Your task to perform on an android device: What's the weather going to be this weekend? Image 0: 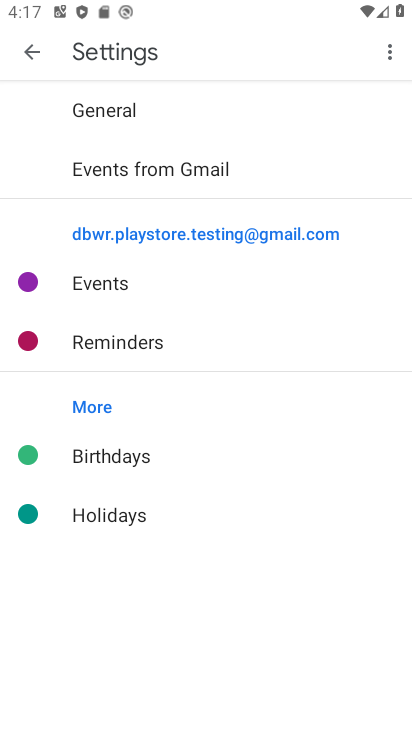
Step 0: click (29, 46)
Your task to perform on an android device: What's the weather going to be this weekend? Image 1: 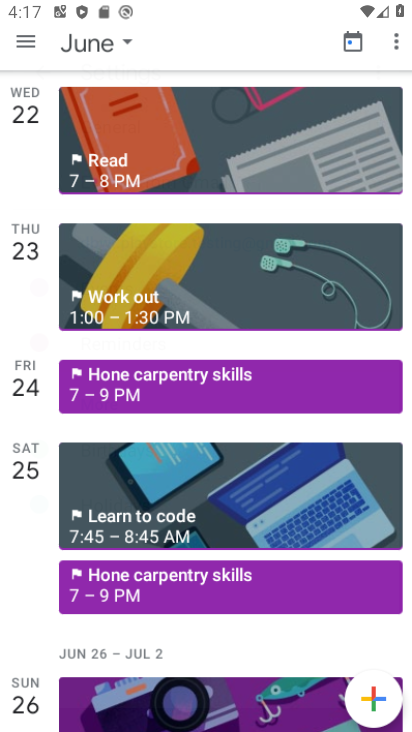
Step 1: click (29, 46)
Your task to perform on an android device: What's the weather going to be this weekend? Image 2: 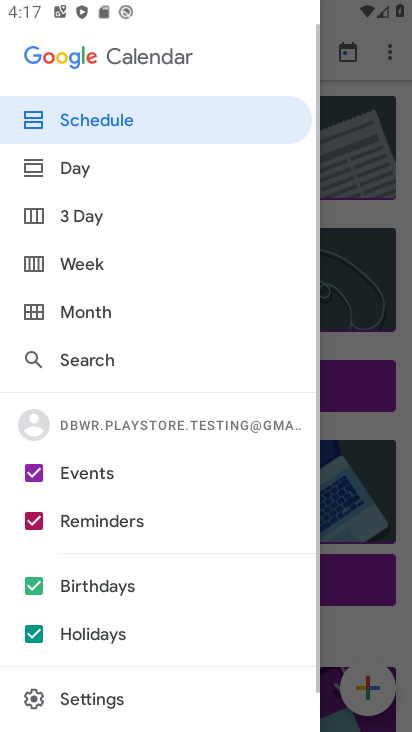
Step 2: press back button
Your task to perform on an android device: What's the weather going to be this weekend? Image 3: 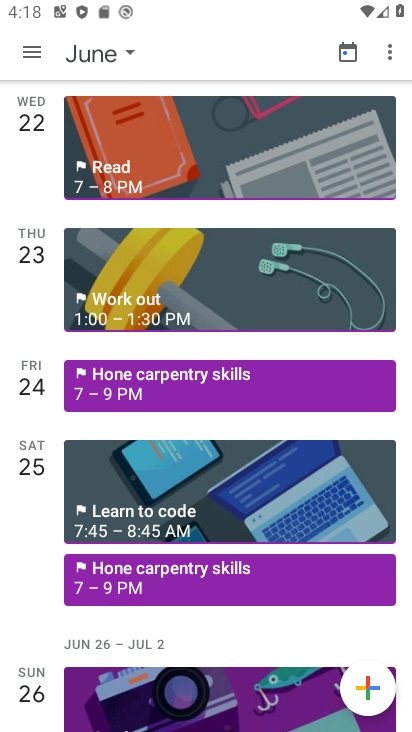
Step 3: press home button
Your task to perform on an android device: What's the weather going to be this weekend? Image 4: 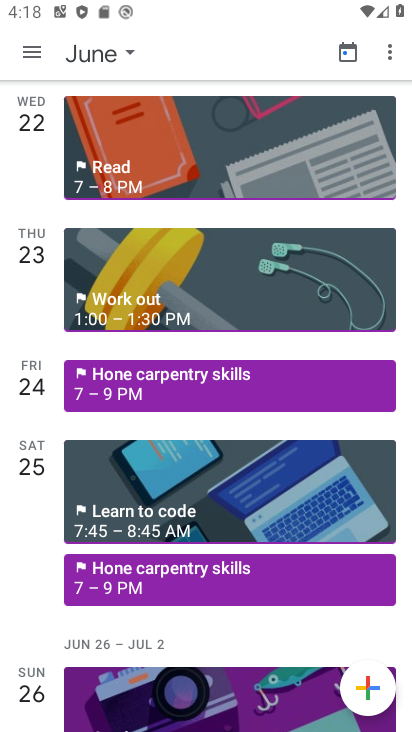
Step 4: press home button
Your task to perform on an android device: What's the weather going to be this weekend? Image 5: 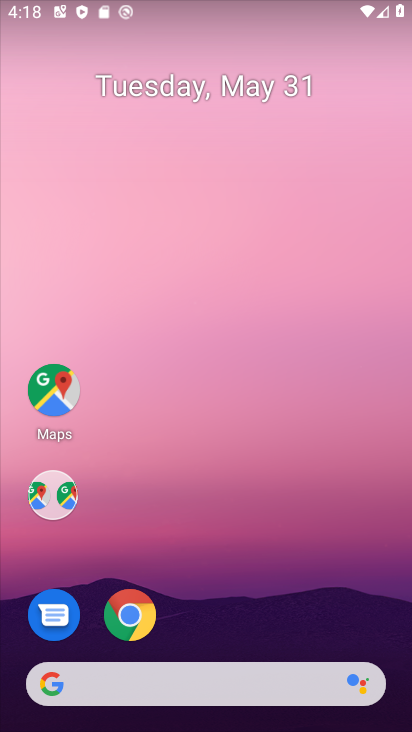
Step 5: drag from (277, 647) to (208, 172)
Your task to perform on an android device: What's the weather going to be this weekend? Image 6: 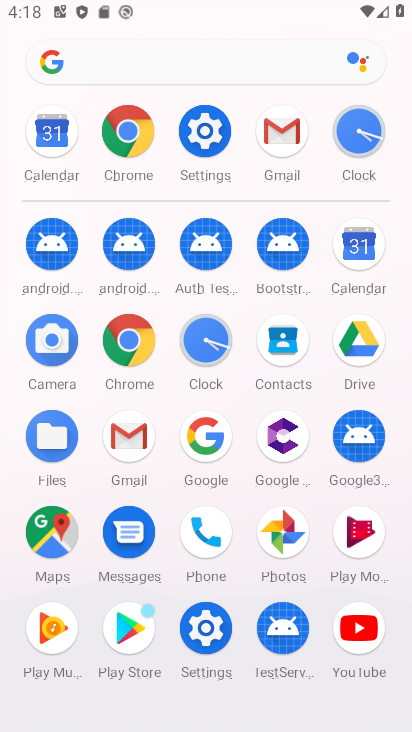
Step 6: press home button
Your task to perform on an android device: What's the weather going to be this weekend? Image 7: 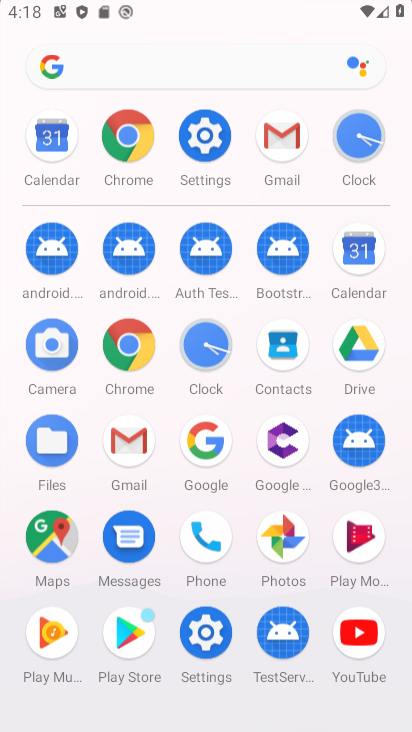
Step 7: press home button
Your task to perform on an android device: What's the weather going to be this weekend? Image 8: 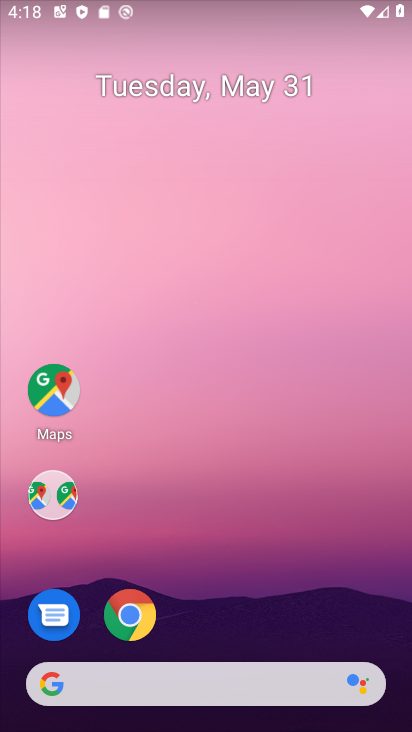
Step 8: press home button
Your task to perform on an android device: What's the weather going to be this weekend? Image 9: 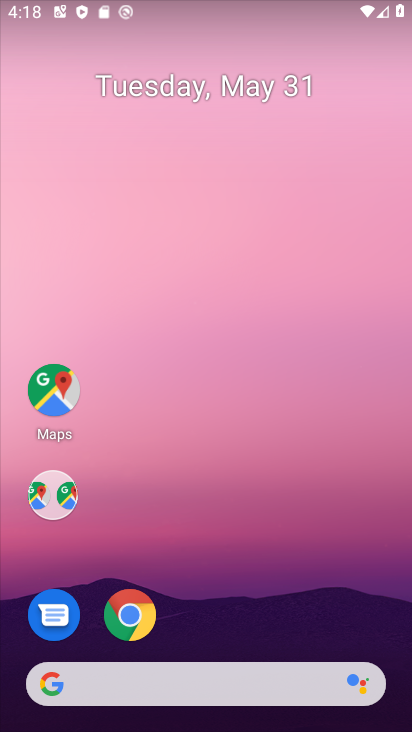
Step 9: drag from (3, 165) to (385, 266)
Your task to perform on an android device: What's the weather going to be this weekend? Image 10: 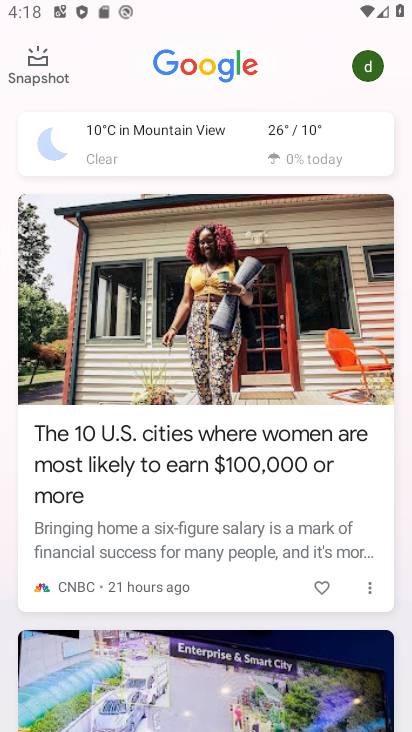
Step 10: click (151, 130)
Your task to perform on an android device: What's the weather going to be this weekend? Image 11: 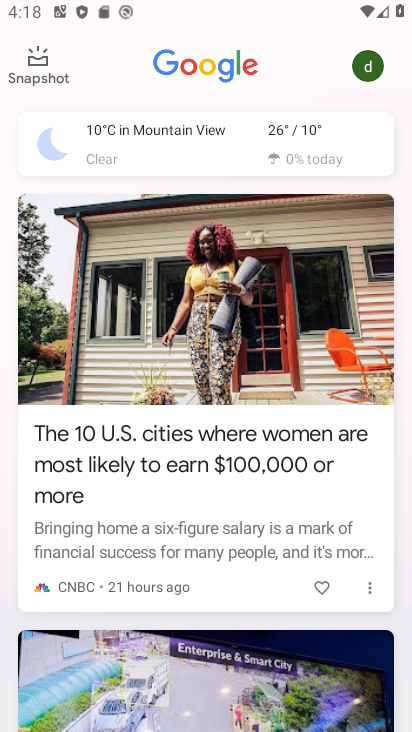
Step 11: click (155, 137)
Your task to perform on an android device: What's the weather going to be this weekend? Image 12: 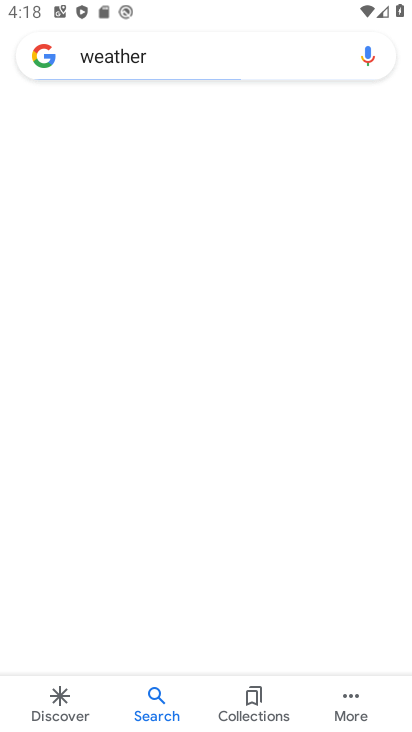
Step 12: click (197, 148)
Your task to perform on an android device: What's the weather going to be this weekend? Image 13: 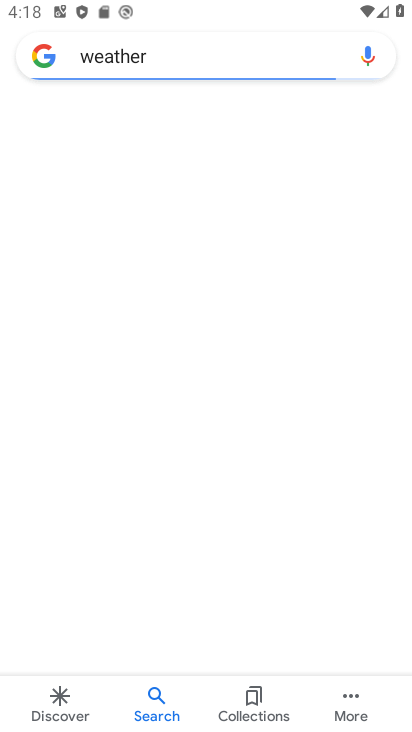
Step 13: click (197, 148)
Your task to perform on an android device: What's the weather going to be this weekend? Image 14: 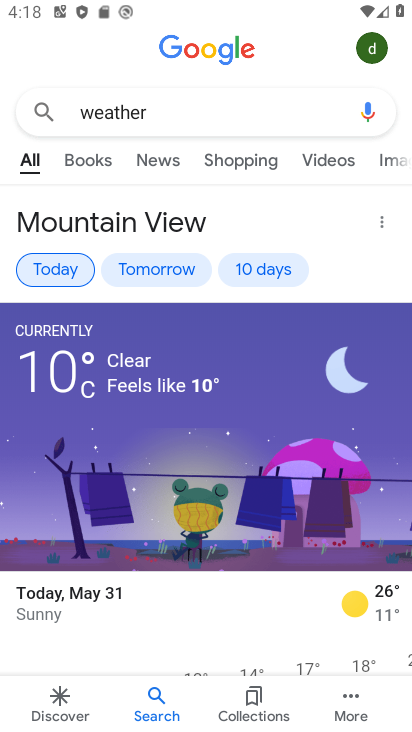
Step 14: task complete